Your task to perform on an android device: Go to CNN.com Image 0: 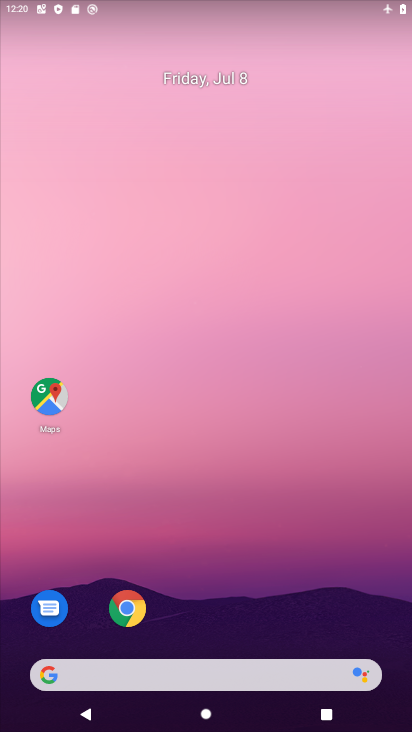
Step 0: click (136, 629)
Your task to perform on an android device: Go to CNN.com Image 1: 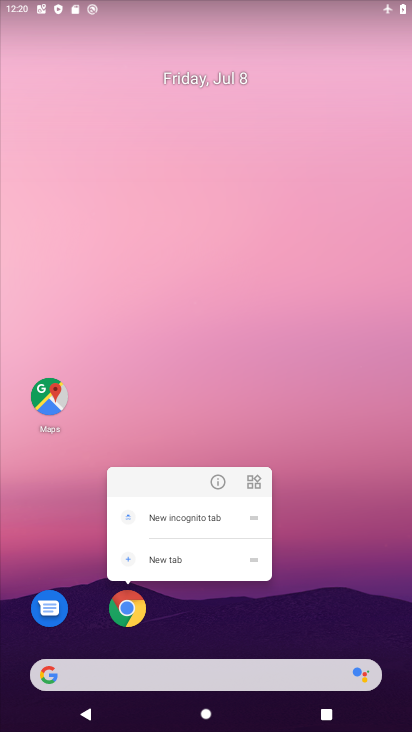
Step 1: click (136, 629)
Your task to perform on an android device: Go to CNN.com Image 2: 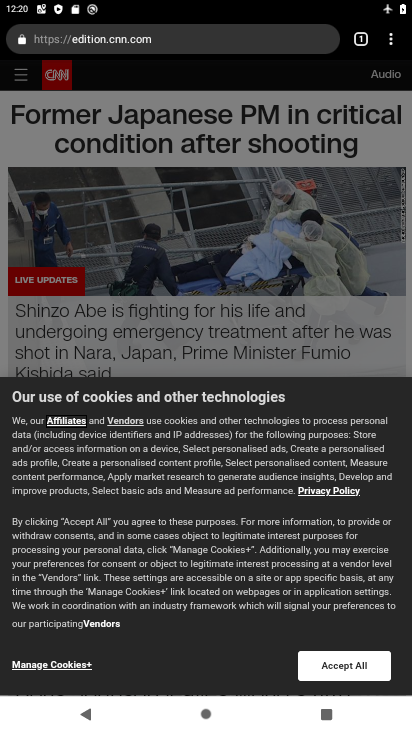
Step 2: click (253, 45)
Your task to perform on an android device: Go to CNN.com Image 3: 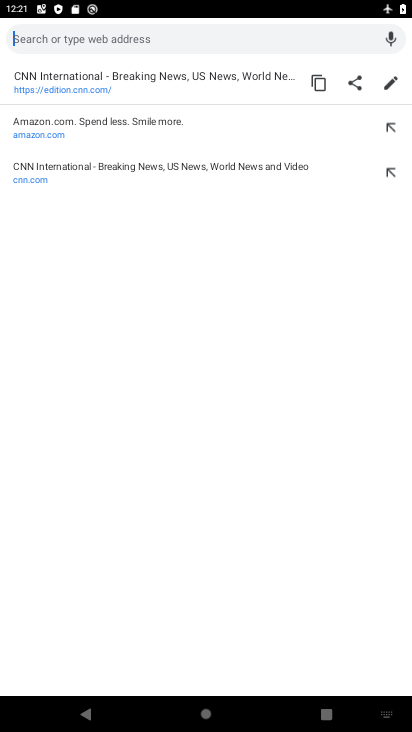
Step 3: press back button
Your task to perform on an android device: Go to CNN.com Image 4: 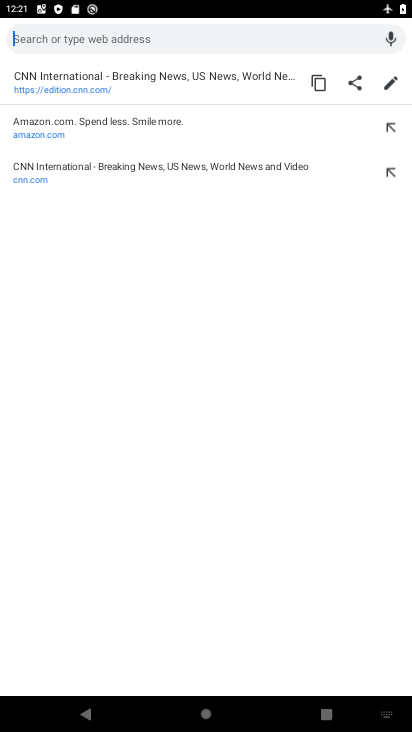
Step 4: type "CNN.com"
Your task to perform on an android device: Go to CNN.com Image 5: 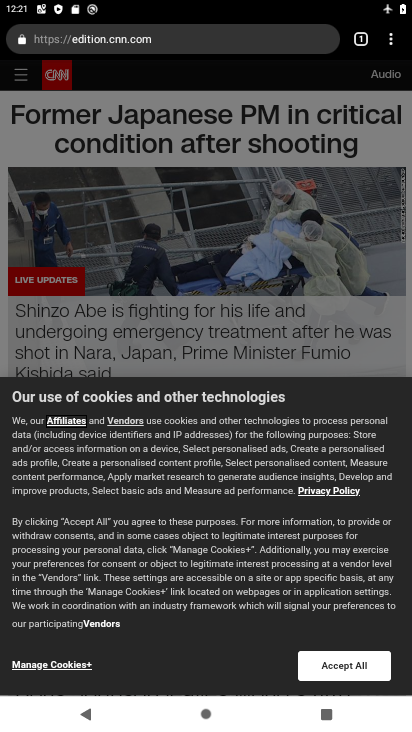
Step 5: press back button
Your task to perform on an android device: Go to CNN.com Image 6: 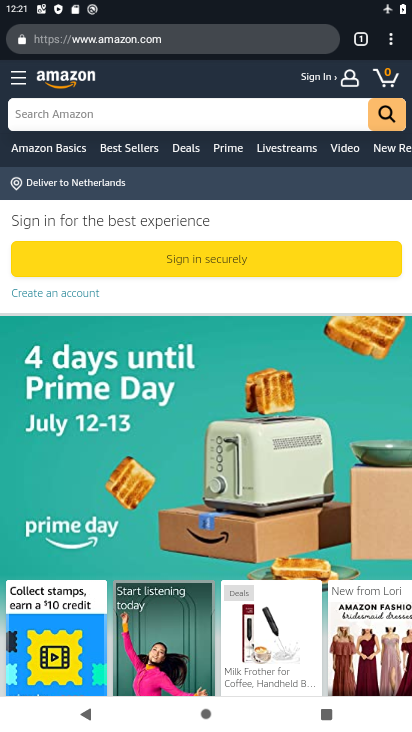
Step 6: click (281, 49)
Your task to perform on an android device: Go to CNN.com Image 7: 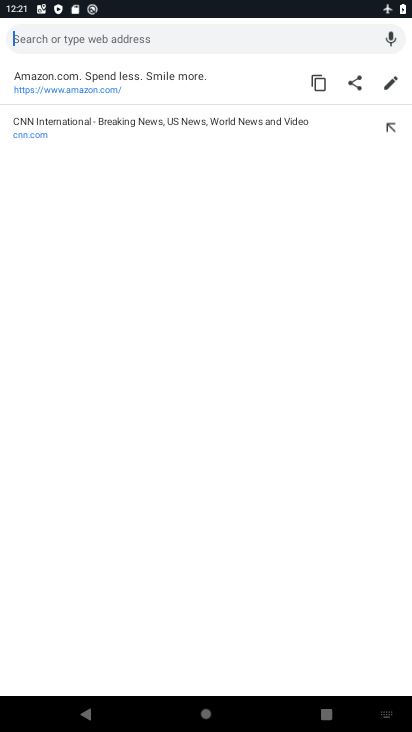
Step 7: type "CNN.com"
Your task to perform on an android device: Go to CNN.com Image 8: 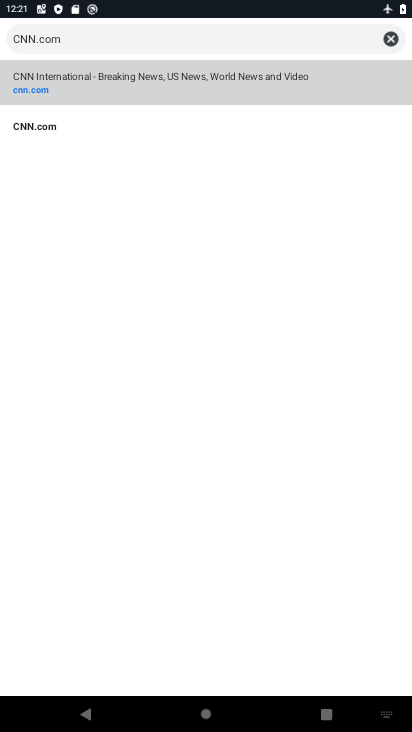
Step 8: click (148, 90)
Your task to perform on an android device: Go to CNN.com Image 9: 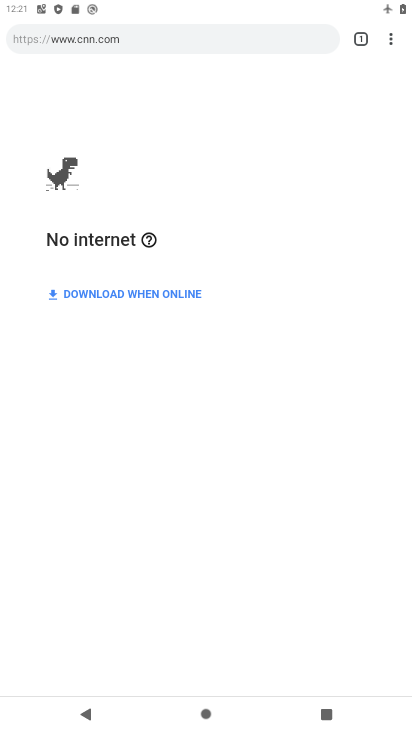
Step 9: drag from (382, 2) to (314, 354)
Your task to perform on an android device: Go to CNN.com Image 10: 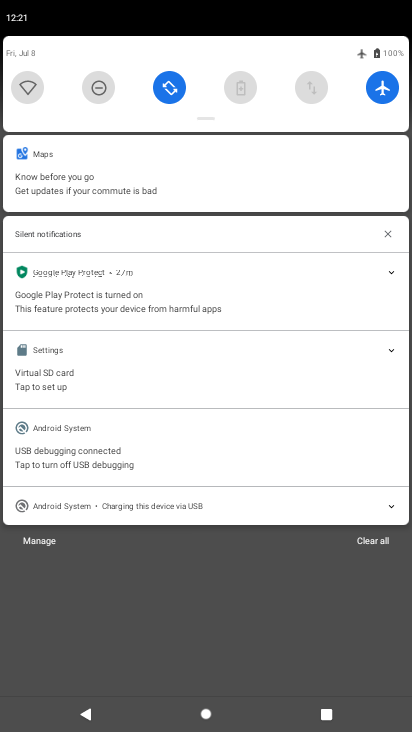
Step 10: click (379, 90)
Your task to perform on an android device: Go to CNN.com Image 11: 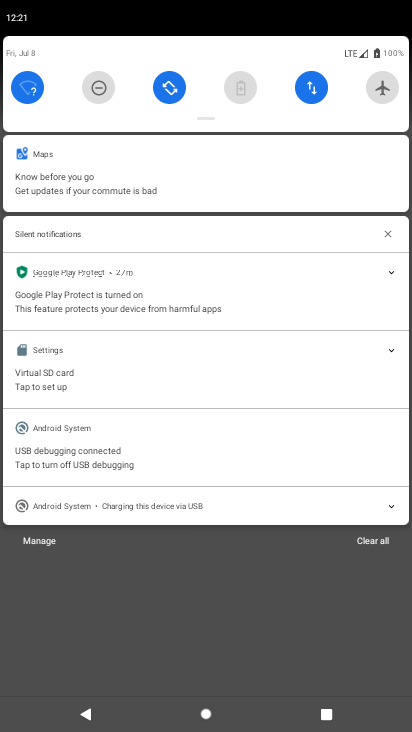
Step 11: click (373, 545)
Your task to perform on an android device: Go to CNN.com Image 12: 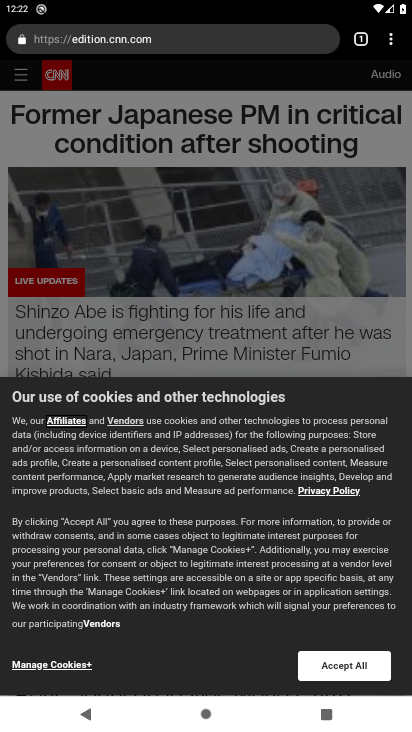
Step 12: task complete